Your task to perform on an android device: allow notifications from all sites in the chrome app Image 0: 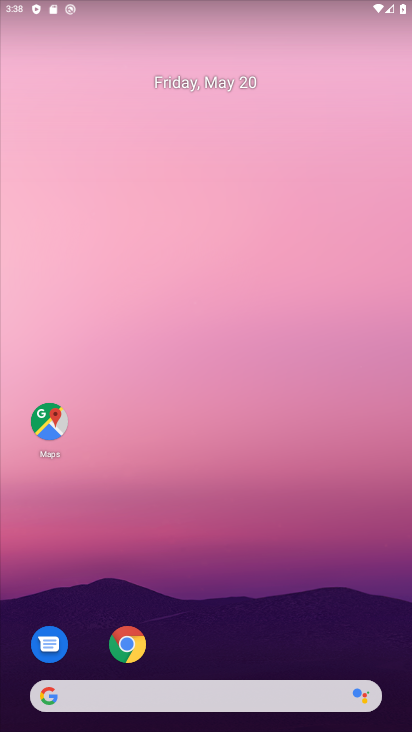
Step 0: click (126, 657)
Your task to perform on an android device: allow notifications from all sites in the chrome app Image 1: 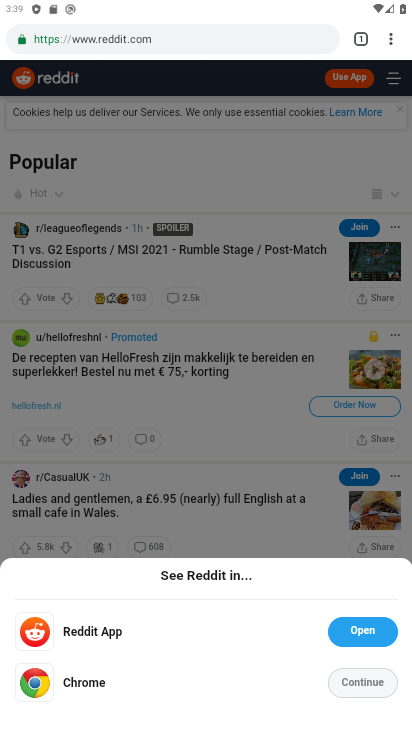
Step 1: drag from (393, 40) to (248, 524)
Your task to perform on an android device: allow notifications from all sites in the chrome app Image 2: 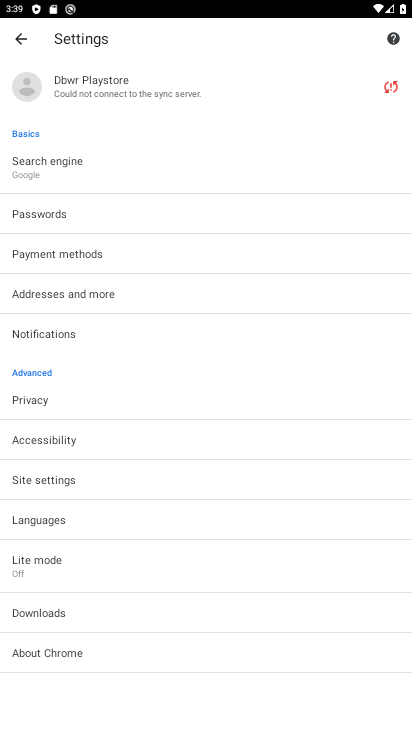
Step 2: click (68, 475)
Your task to perform on an android device: allow notifications from all sites in the chrome app Image 3: 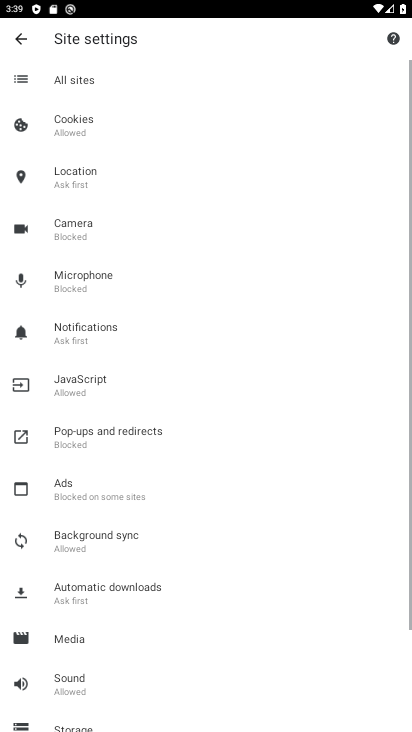
Step 3: click (101, 331)
Your task to perform on an android device: allow notifications from all sites in the chrome app Image 4: 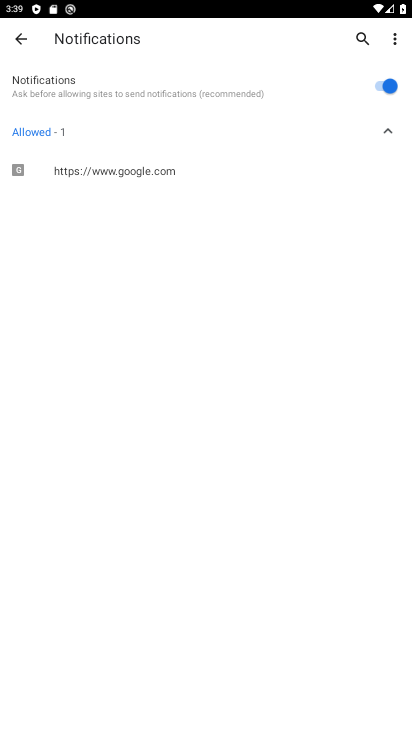
Step 4: task complete